Your task to perform on an android device: Check the news Image 0: 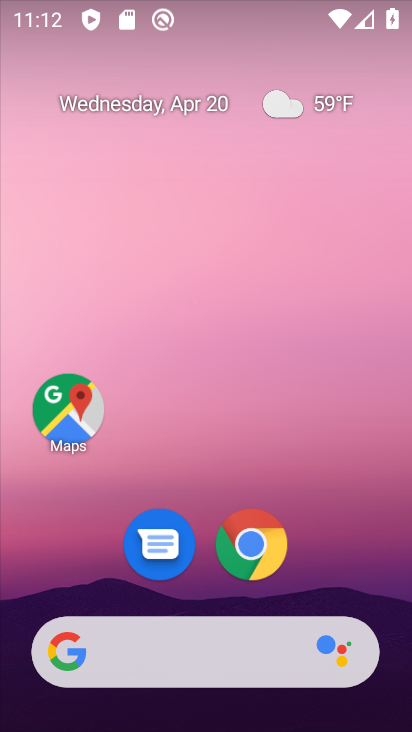
Step 0: drag from (200, 603) to (177, 175)
Your task to perform on an android device: Check the news Image 1: 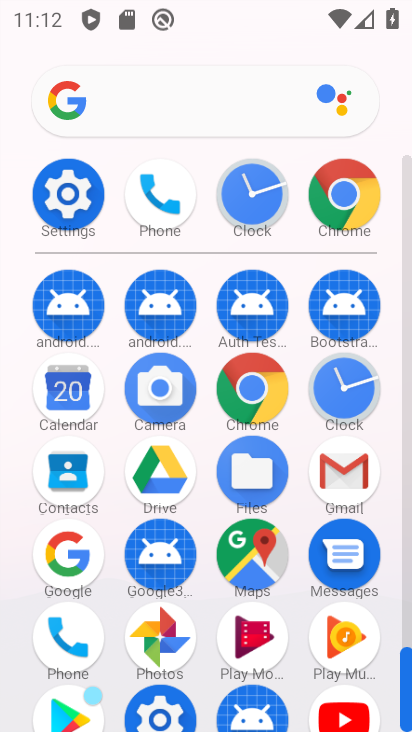
Step 1: click (66, 552)
Your task to perform on an android device: Check the news Image 2: 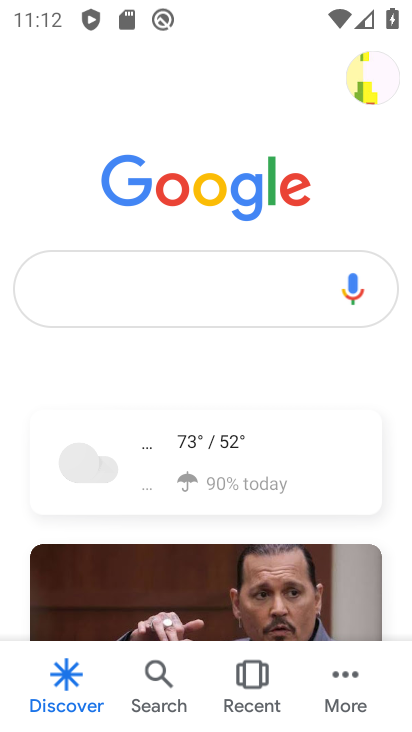
Step 2: click (55, 291)
Your task to perform on an android device: Check the news Image 3: 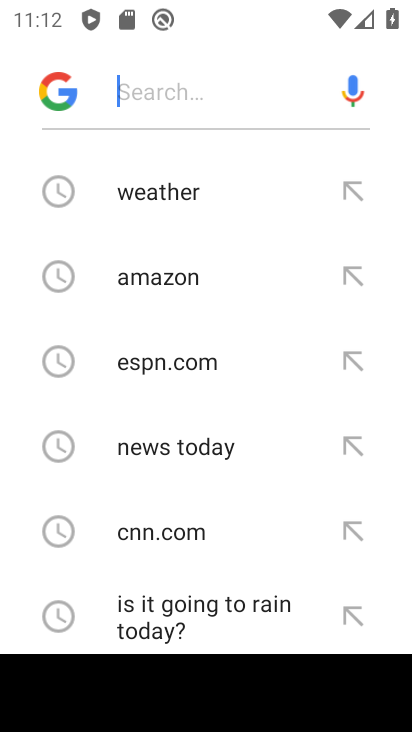
Step 3: click (165, 447)
Your task to perform on an android device: Check the news Image 4: 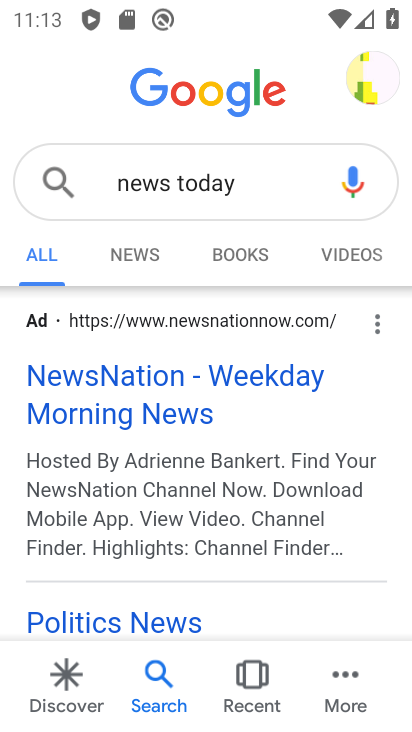
Step 4: click (155, 383)
Your task to perform on an android device: Check the news Image 5: 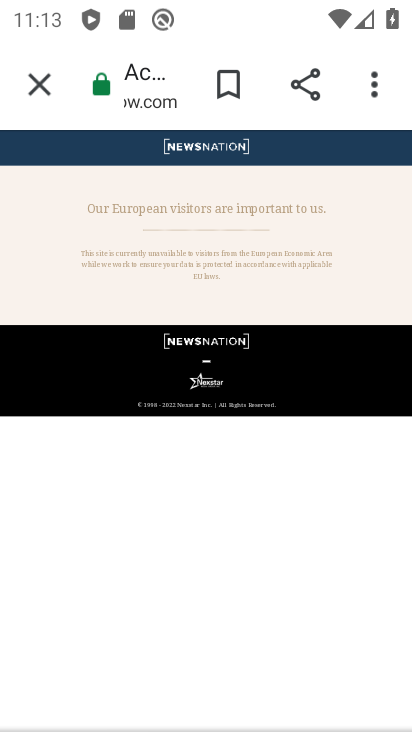
Step 5: task complete